Your task to perform on an android device: Go to ESPN.com Image 0: 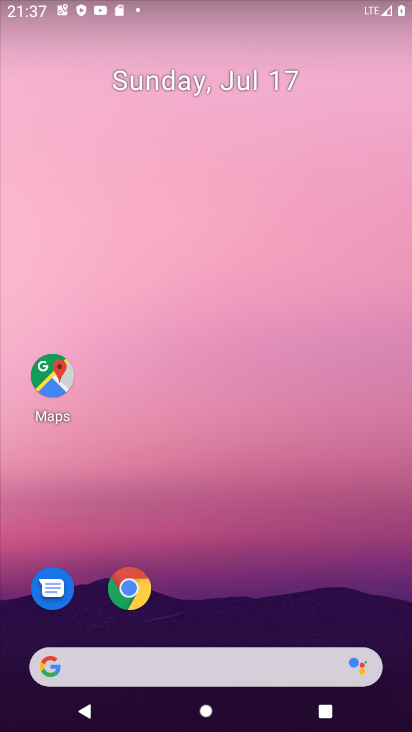
Step 0: press home button
Your task to perform on an android device: Go to ESPN.com Image 1: 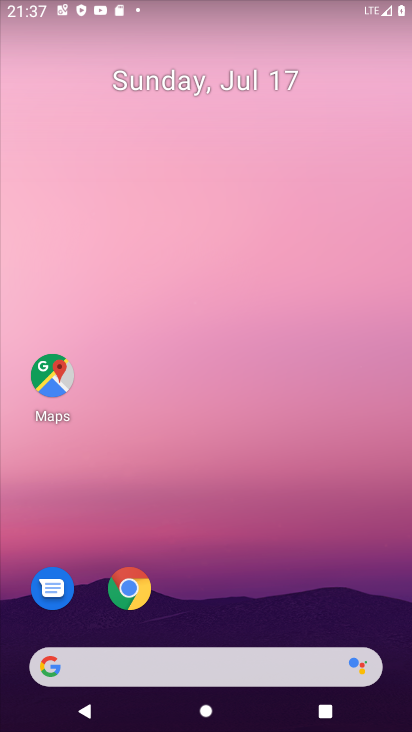
Step 1: click (121, 599)
Your task to perform on an android device: Go to ESPN.com Image 2: 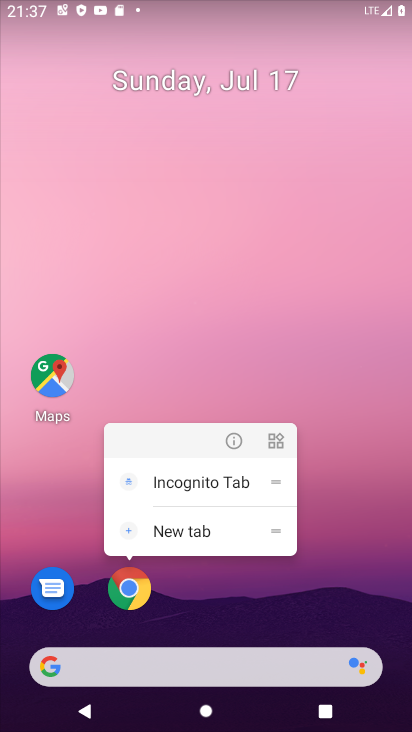
Step 2: click (123, 599)
Your task to perform on an android device: Go to ESPN.com Image 3: 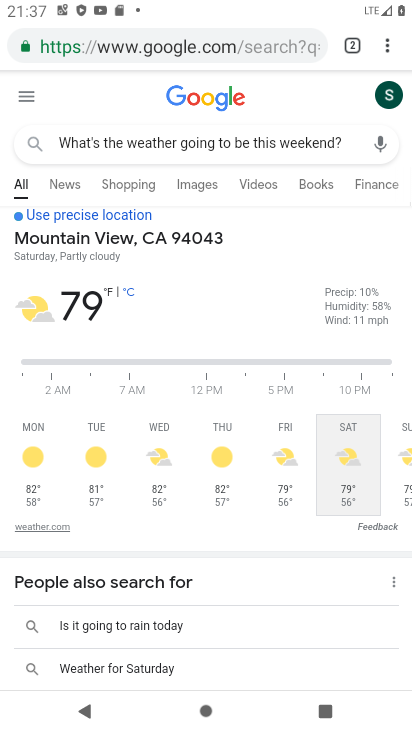
Step 3: click (186, 48)
Your task to perform on an android device: Go to ESPN.com Image 4: 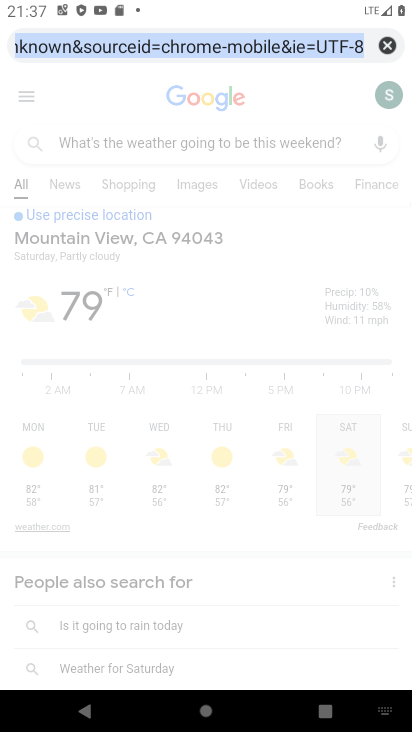
Step 4: type "ESPN.com"
Your task to perform on an android device: Go to ESPN.com Image 5: 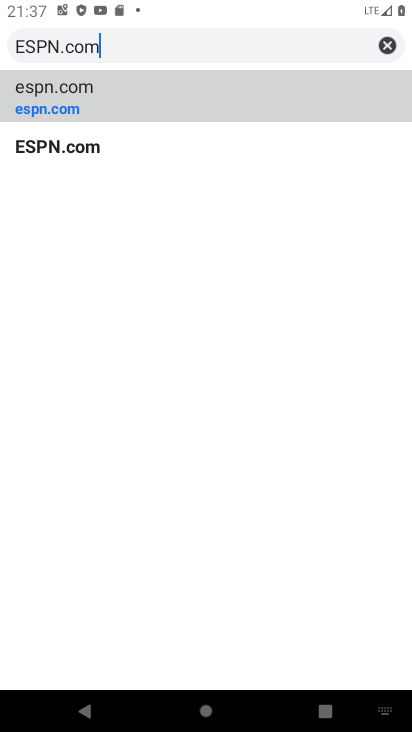
Step 5: type ""
Your task to perform on an android device: Go to ESPN.com Image 6: 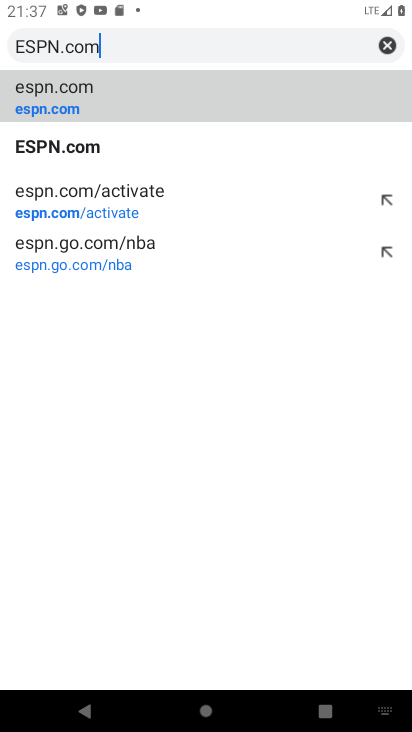
Step 6: click (72, 90)
Your task to perform on an android device: Go to ESPN.com Image 7: 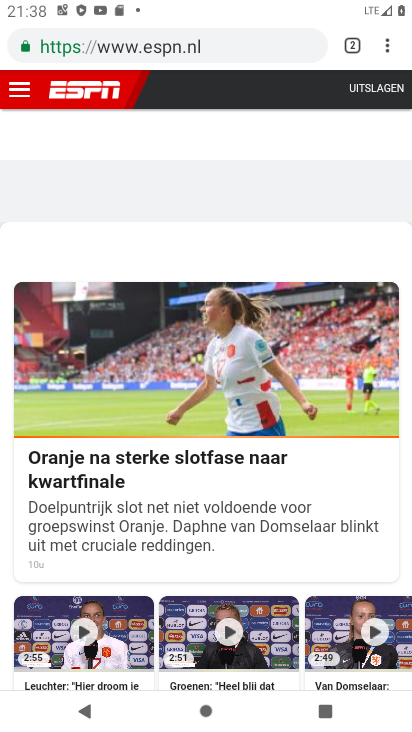
Step 7: task complete